Your task to perform on an android device: open app "Pluto TV - Live TV and Movies" Image 0: 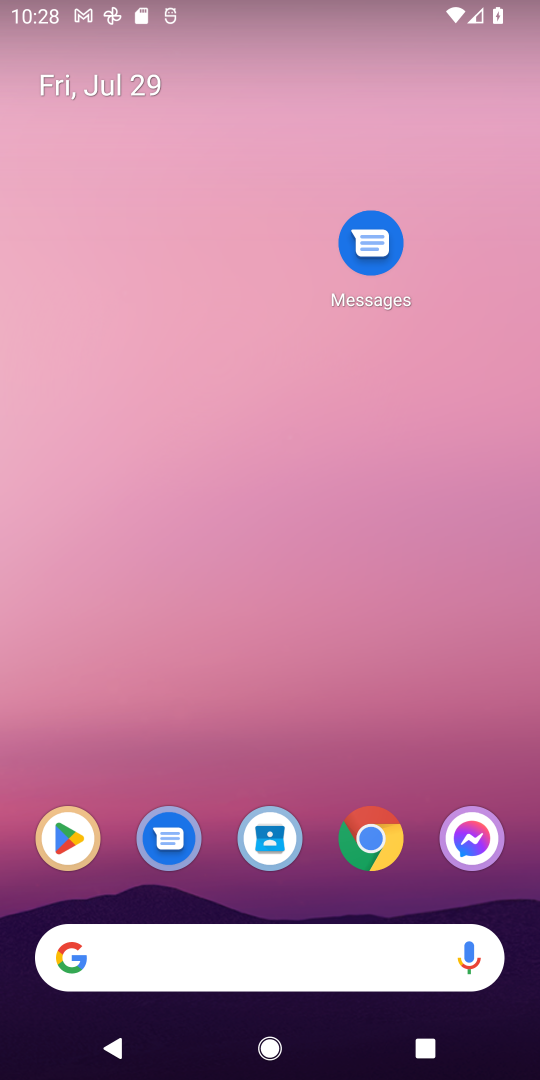
Step 0: click (76, 849)
Your task to perform on an android device: open app "Pluto TV - Live TV and Movies" Image 1: 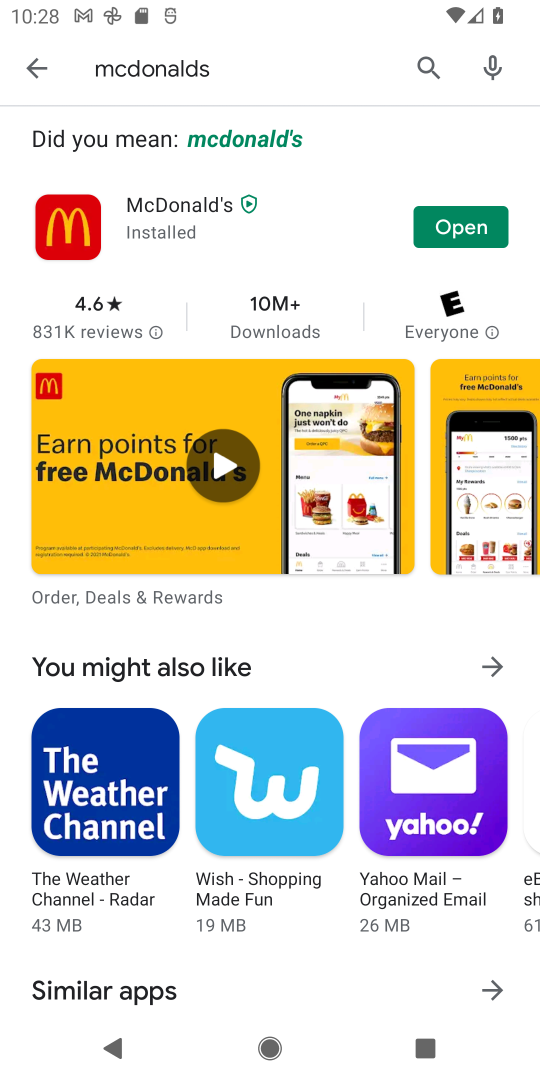
Step 1: click (271, 76)
Your task to perform on an android device: open app "Pluto TV - Live TV and Movies" Image 2: 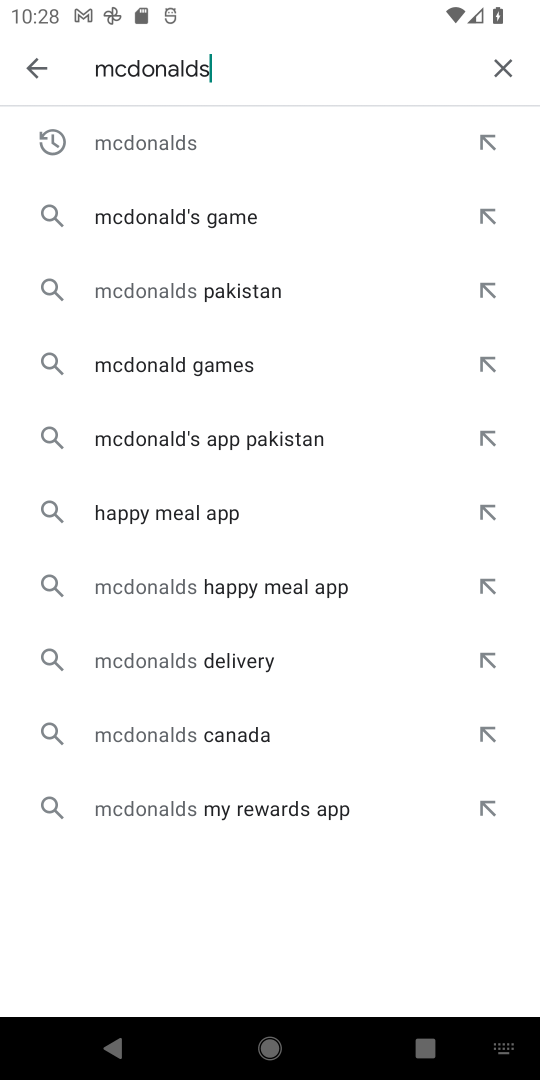
Step 2: click (497, 60)
Your task to perform on an android device: open app "Pluto TV - Live TV and Movies" Image 3: 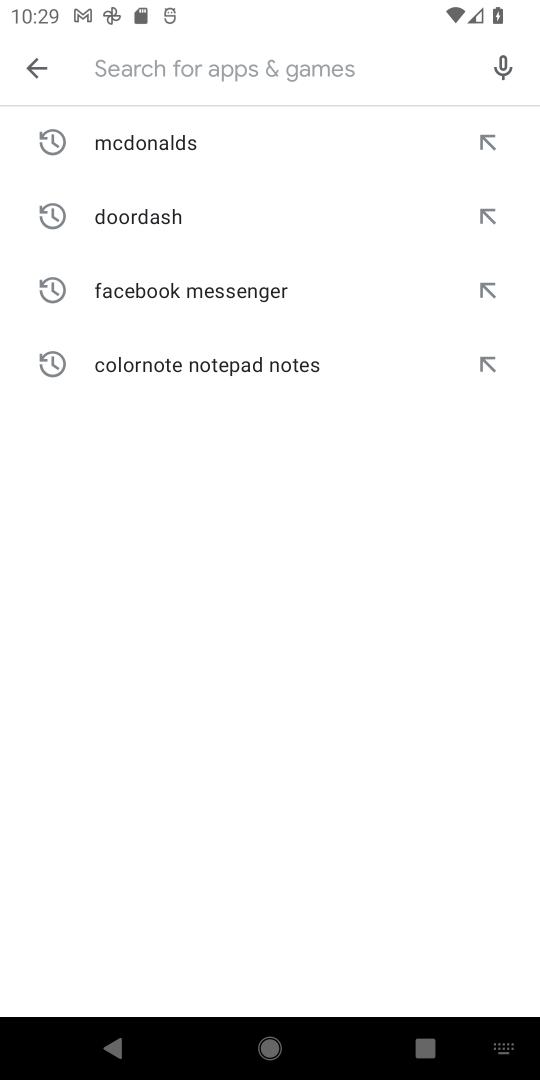
Step 3: type "Pluto TV"
Your task to perform on an android device: open app "Pluto TV - Live TV and Movies" Image 4: 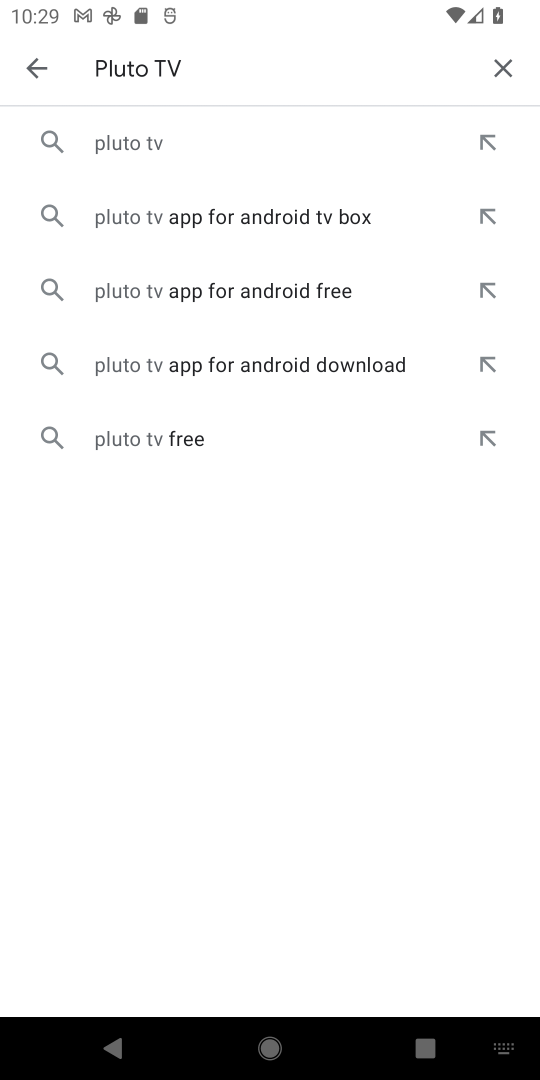
Step 4: click (207, 146)
Your task to perform on an android device: open app "Pluto TV - Live TV and Movies" Image 5: 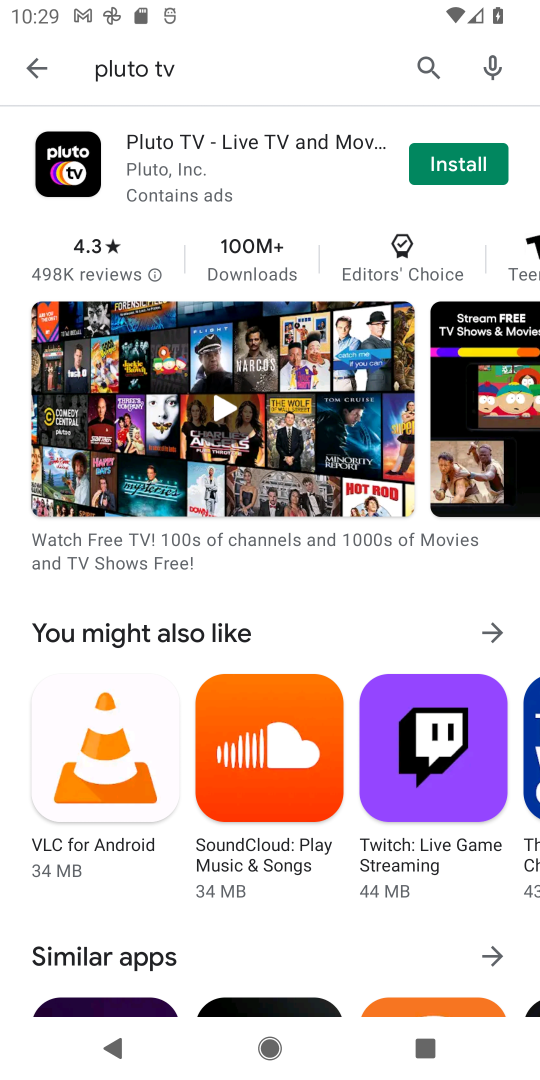
Step 5: task complete